Your task to perform on an android device: Go to battery settings Image 0: 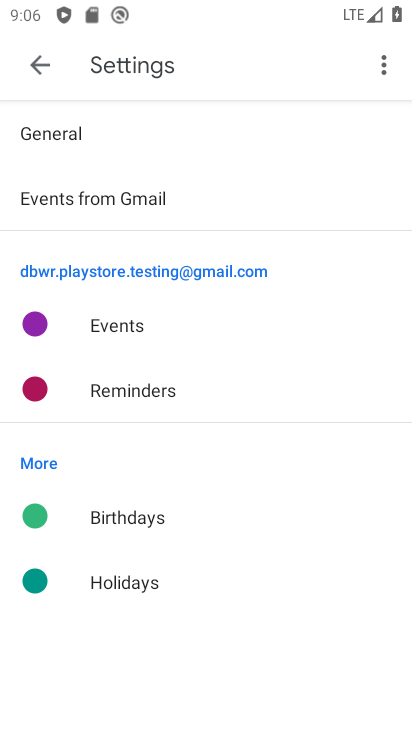
Step 0: press home button
Your task to perform on an android device: Go to battery settings Image 1: 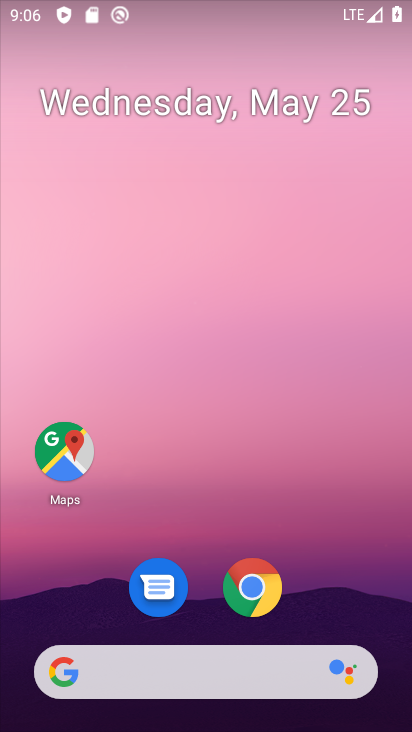
Step 1: drag from (206, 622) to (211, 275)
Your task to perform on an android device: Go to battery settings Image 2: 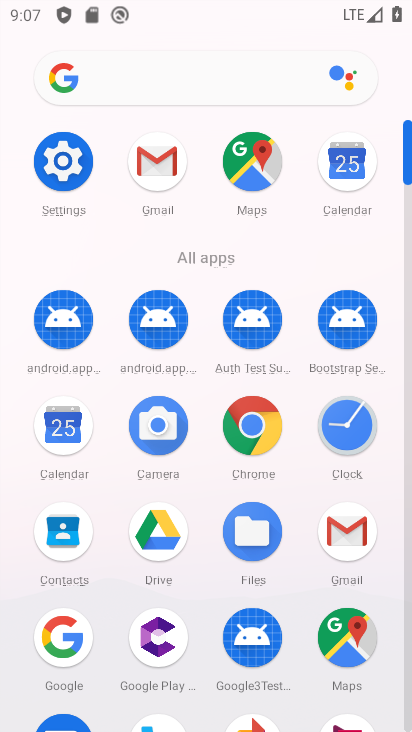
Step 2: click (69, 166)
Your task to perform on an android device: Go to battery settings Image 3: 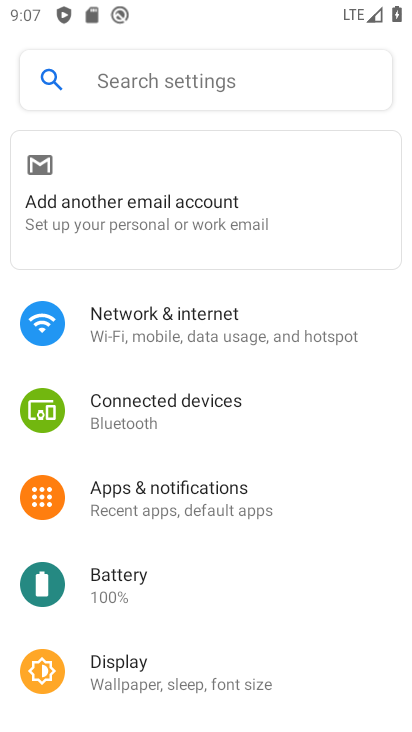
Step 3: click (152, 587)
Your task to perform on an android device: Go to battery settings Image 4: 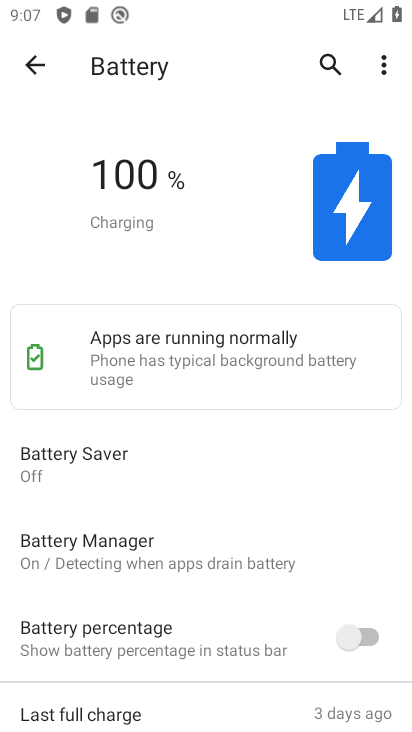
Step 4: task complete